Your task to perform on an android device: Open my contact list Image 0: 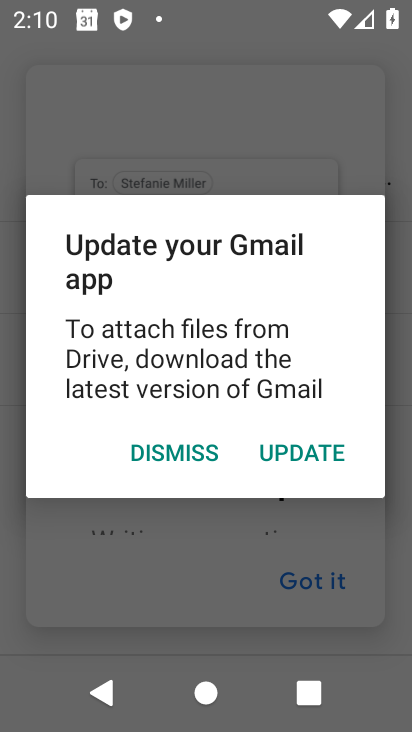
Step 0: press home button
Your task to perform on an android device: Open my contact list Image 1: 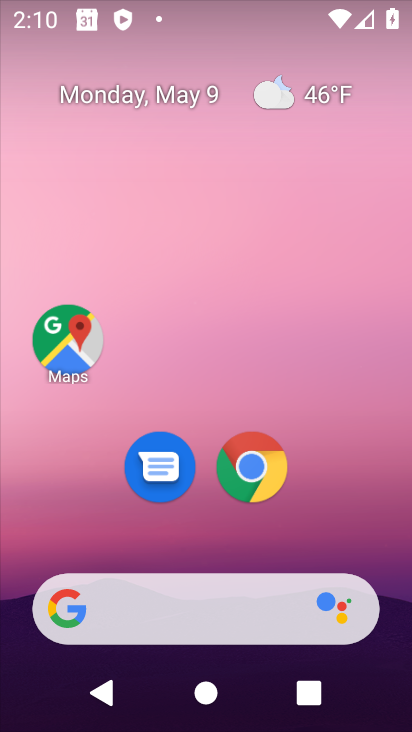
Step 1: drag from (369, 516) to (344, 80)
Your task to perform on an android device: Open my contact list Image 2: 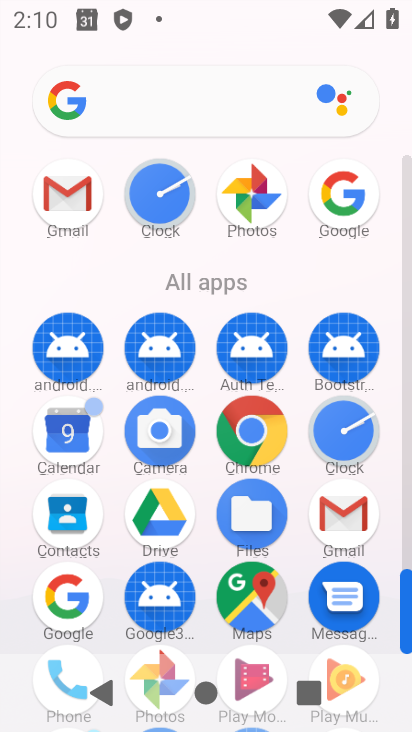
Step 2: click (71, 519)
Your task to perform on an android device: Open my contact list Image 3: 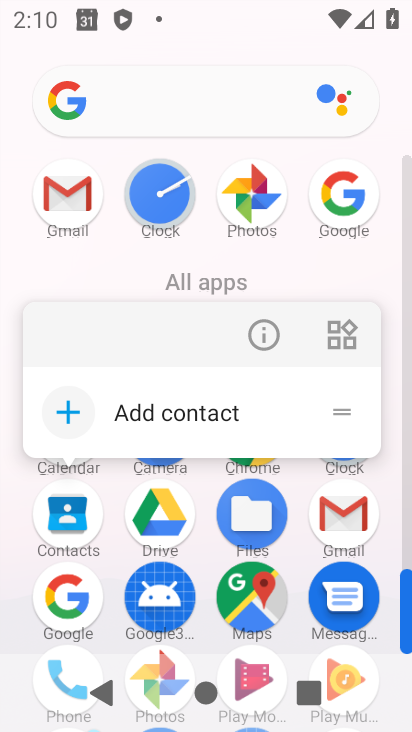
Step 3: click (63, 496)
Your task to perform on an android device: Open my contact list Image 4: 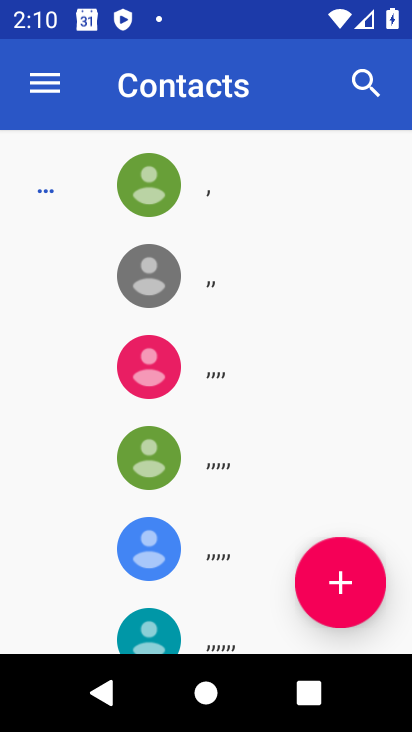
Step 4: task complete